Your task to perform on an android device: Show me recent news Image 0: 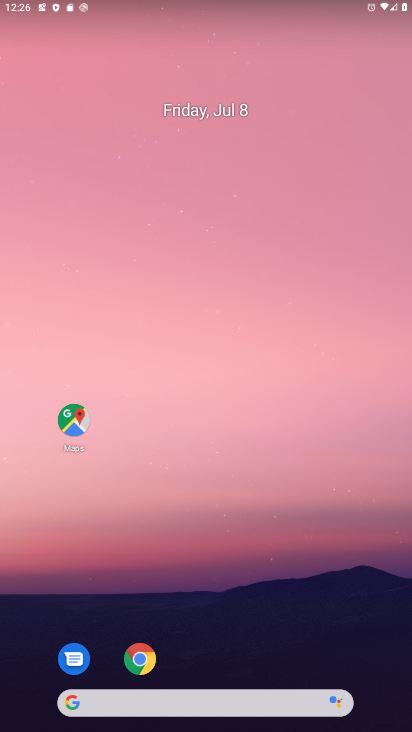
Step 0: drag from (24, 309) to (360, 310)
Your task to perform on an android device: Show me recent news Image 1: 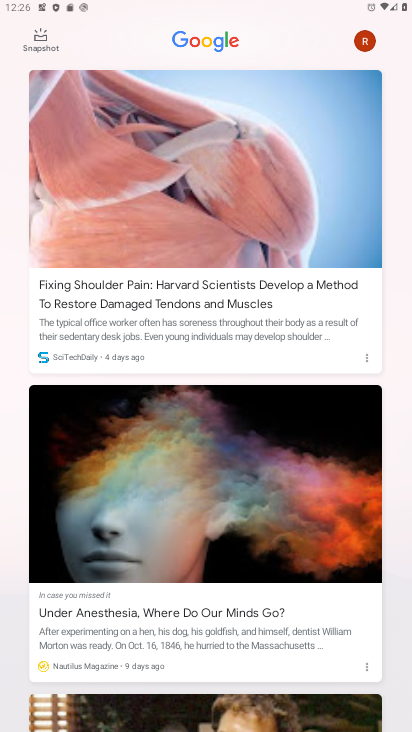
Step 1: task complete